Your task to perform on an android device: turn off improve location accuracy Image 0: 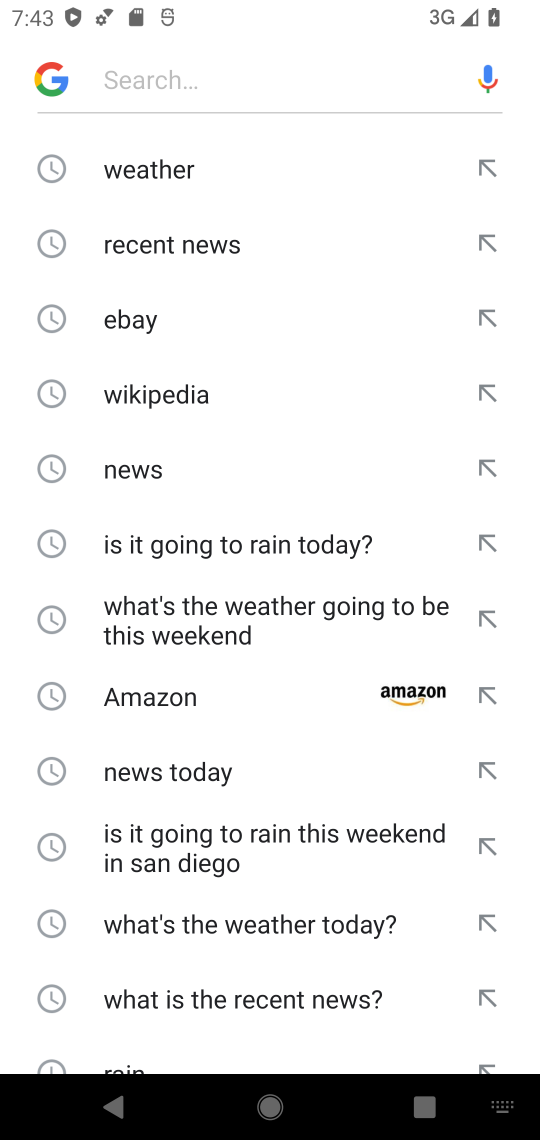
Step 0: press home button
Your task to perform on an android device: turn off improve location accuracy Image 1: 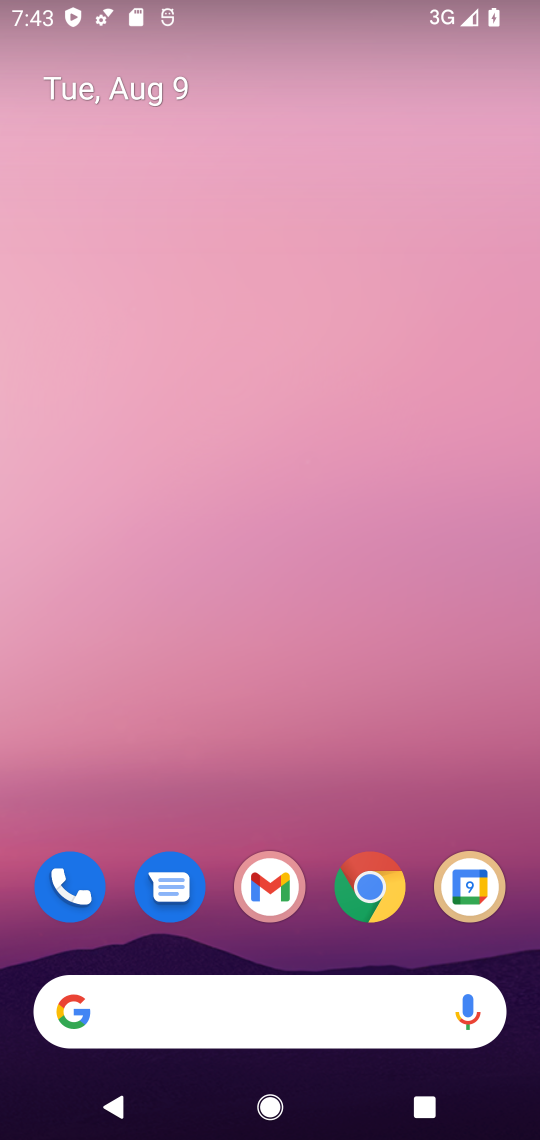
Step 1: drag from (305, 785) to (321, 4)
Your task to perform on an android device: turn off improve location accuracy Image 2: 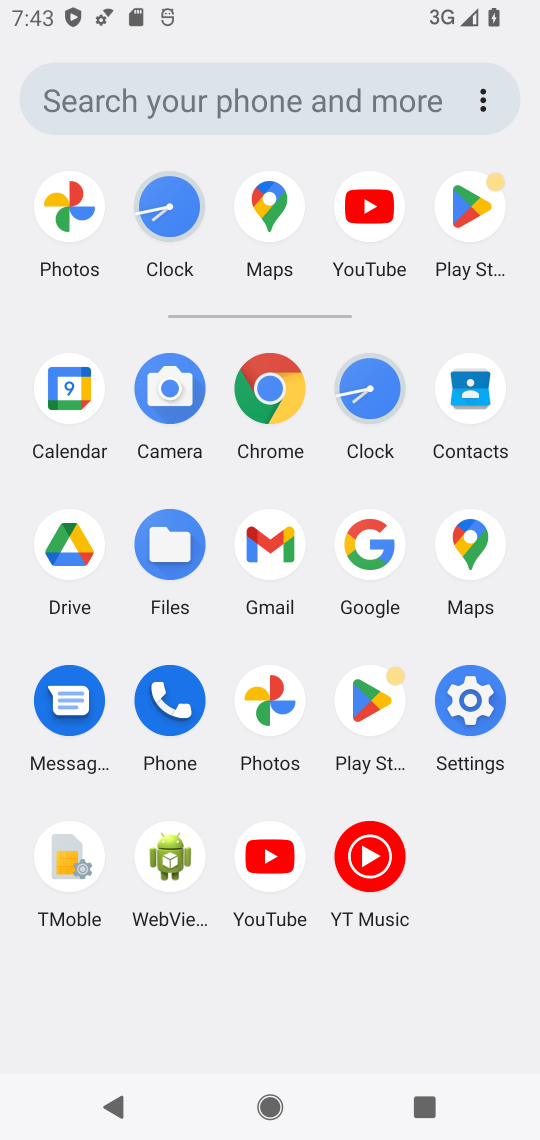
Step 2: click (475, 696)
Your task to perform on an android device: turn off improve location accuracy Image 3: 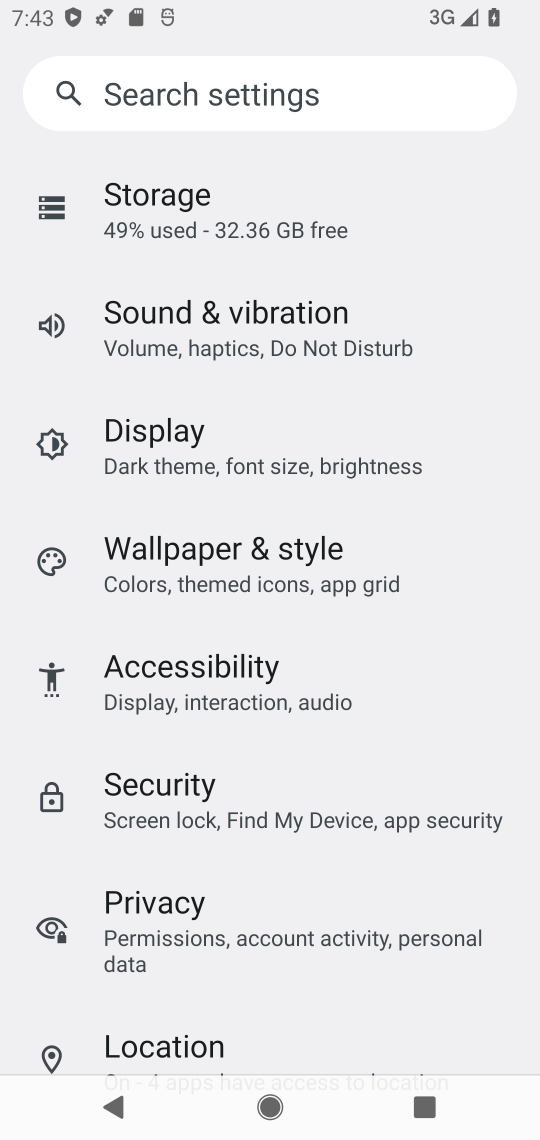
Step 3: drag from (319, 854) to (293, 419)
Your task to perform on an android device: turn off improve location accuracy Image 4: 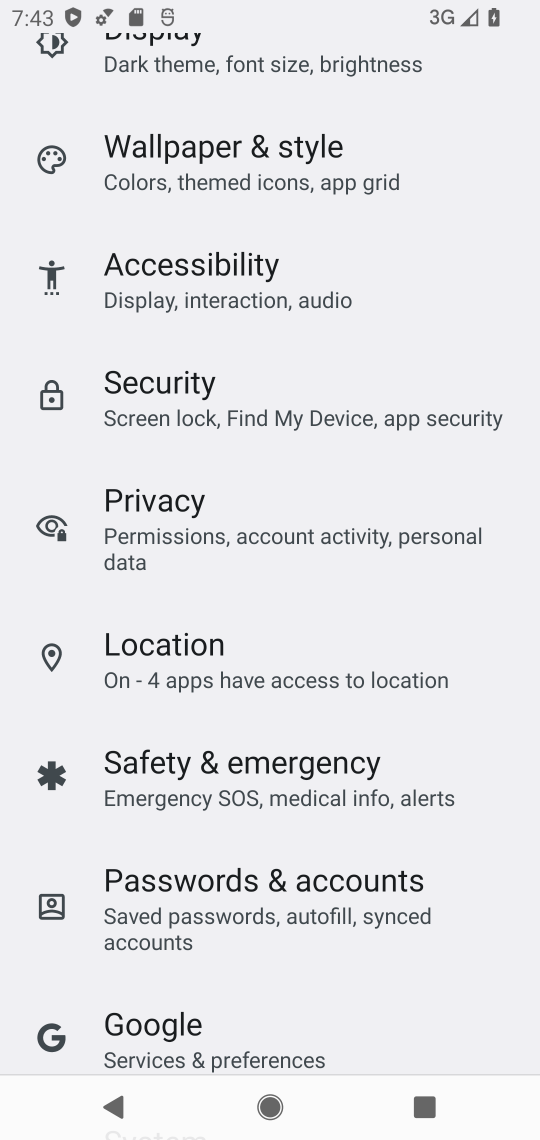
Step 4: click (295, 662)
Your task to perform on an android device: turn off improve location accuracy Image 5: 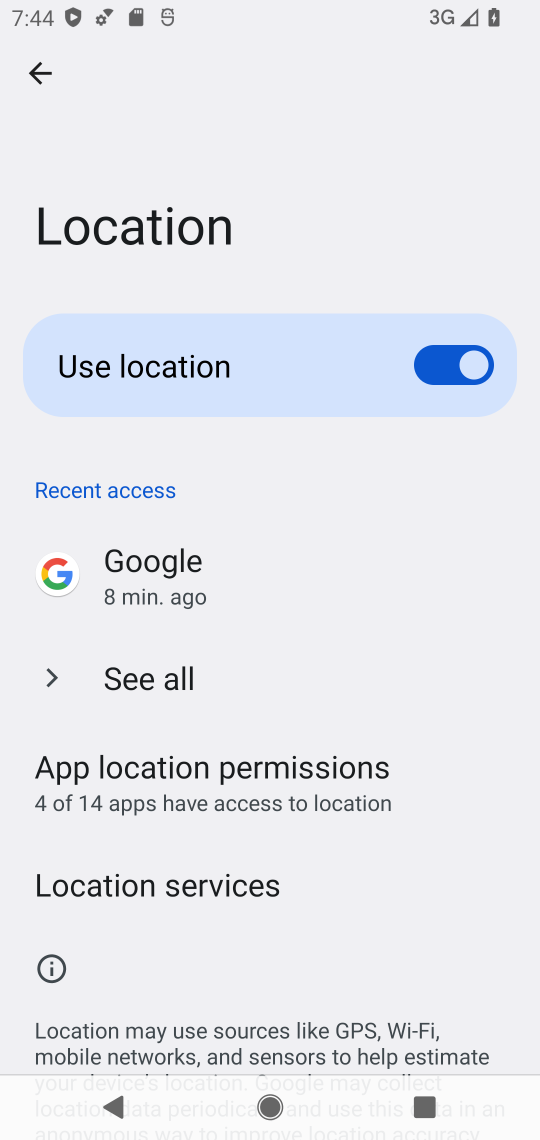
Step 5: click (268, 882)
Your task to perform on an android device: turn off improve location accuracy Image 6: 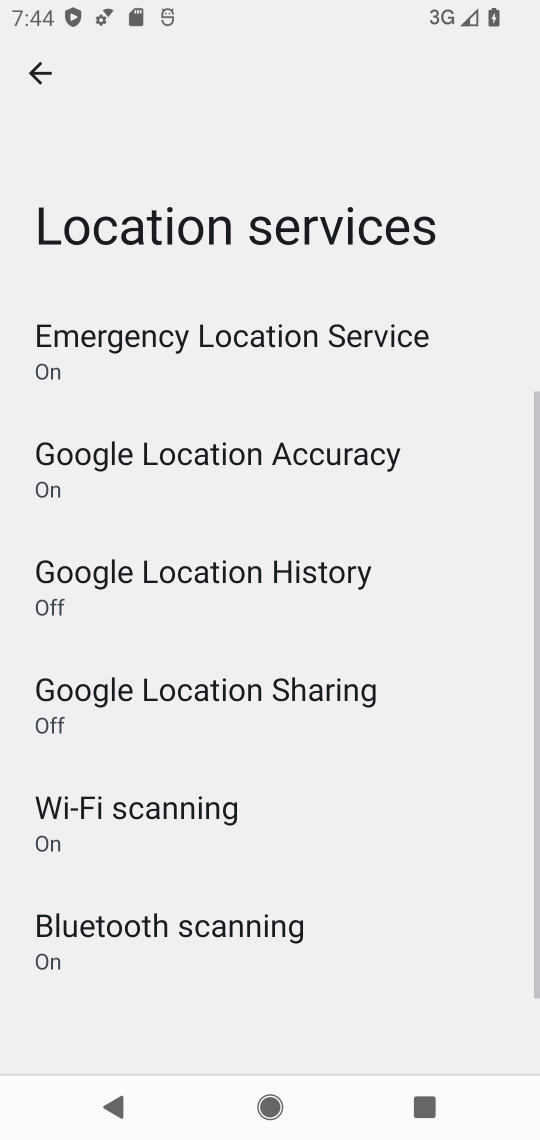
Step 6: click (285, 458)
Your task to perform on an android device: turn off improve location accuracy Image 7: 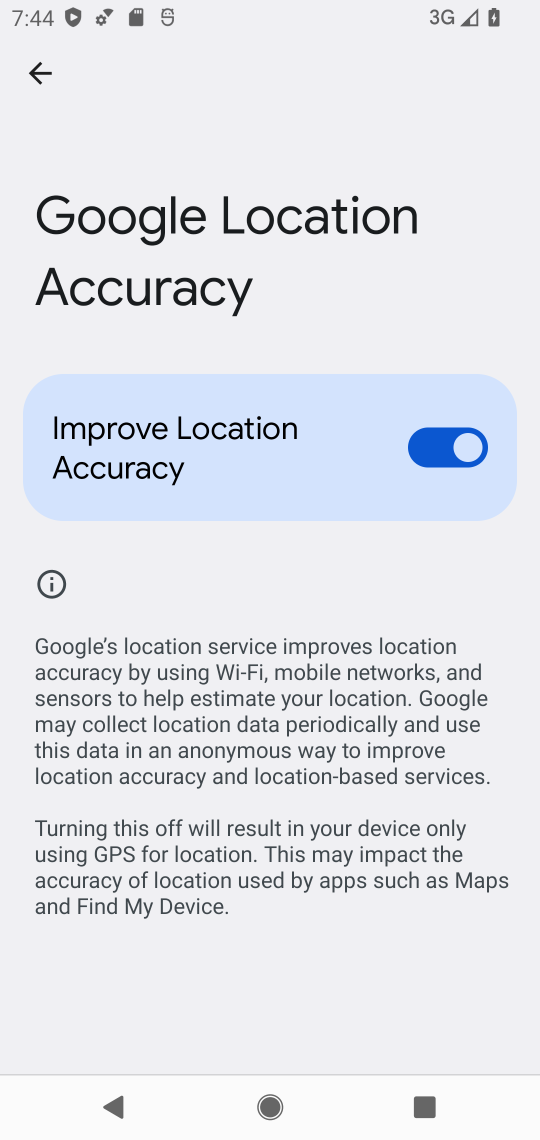
Step 7: click (450, 436)
Your task to perform on an android device: turn off improve location accuracy Image 8: 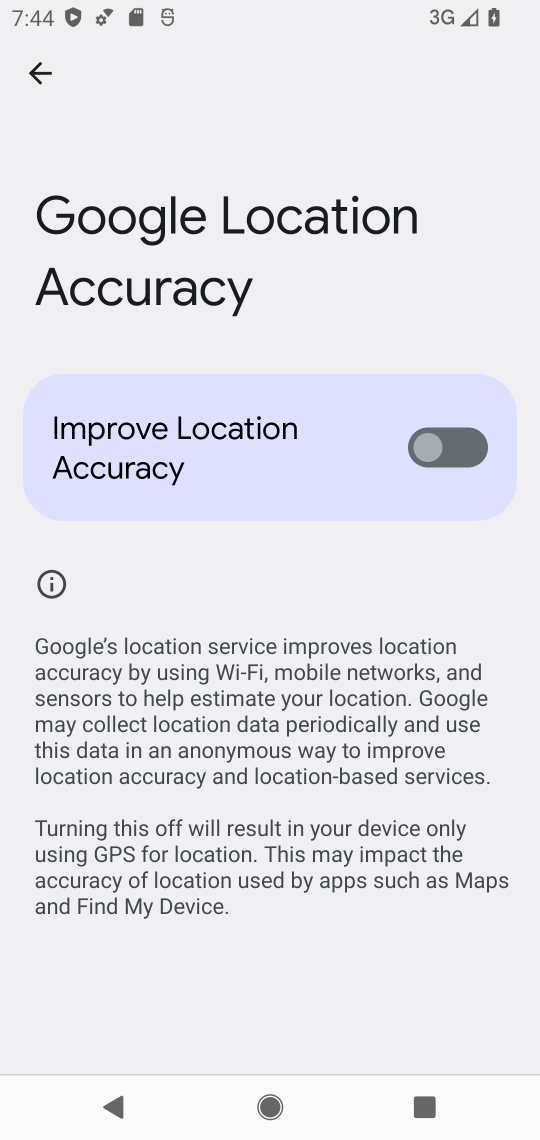
Step 8: task complete